Your task to perform on an android device: Open notification settings Image 0: 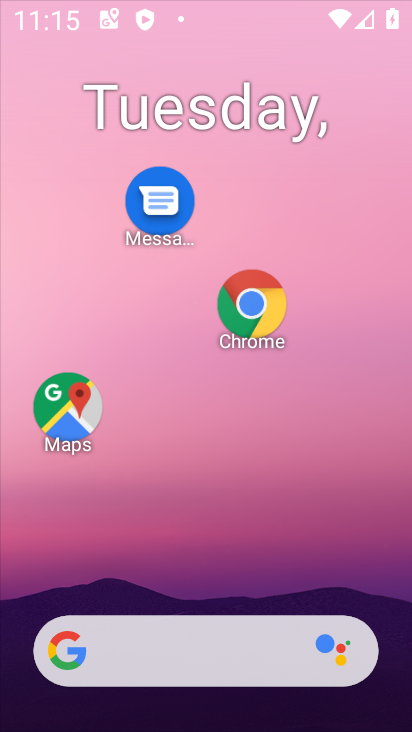
Step 0: click (363, 137)
Your task to perform on an android device: Open notification settings Image 1: 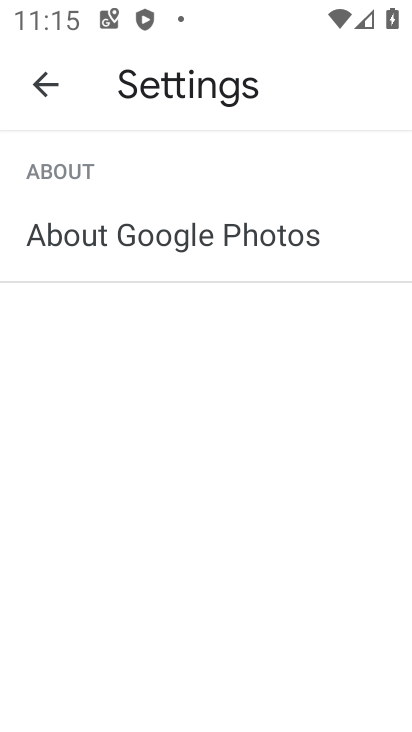
Step 1: press home button
Your task to perform on an android device: Open notification settings Image 2: 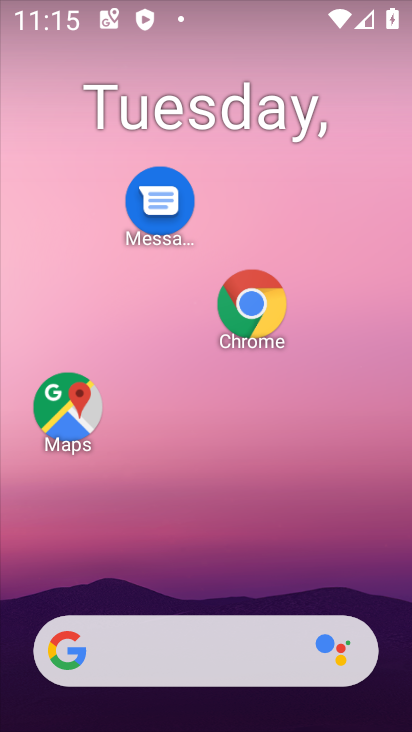
Step 2: drag from (196, 585) to (177, 188)
Your task to perform on an android device: Open notification settings Image 3: 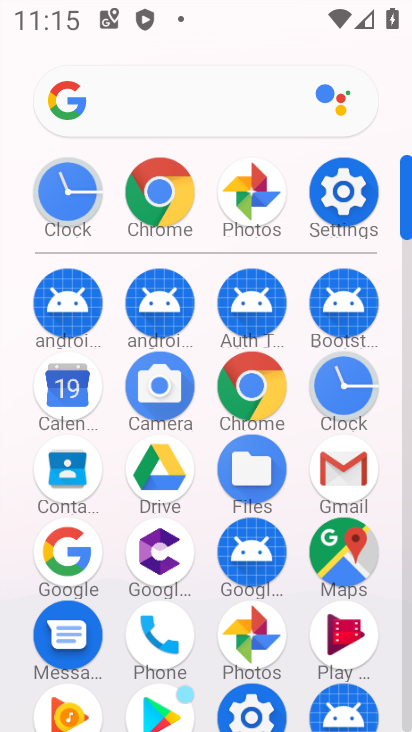
Step 3: click (336, 204)
Your task to perform on an android device: Open notification settings Image 4: 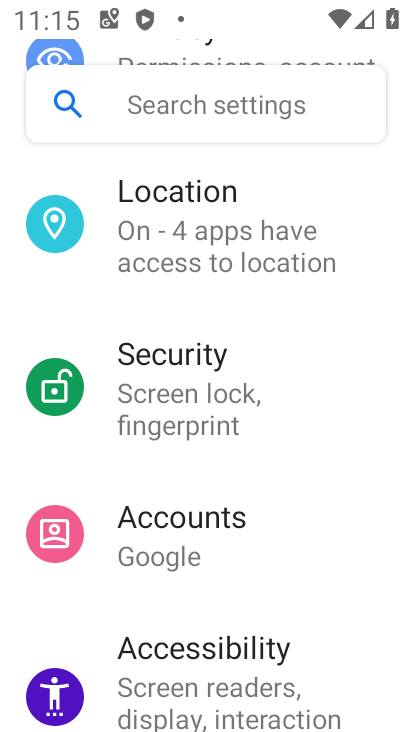
Step 4: drag from (336, 204) to (246, 709)
Your task to perform on an android device: Open notification settings Image 5: 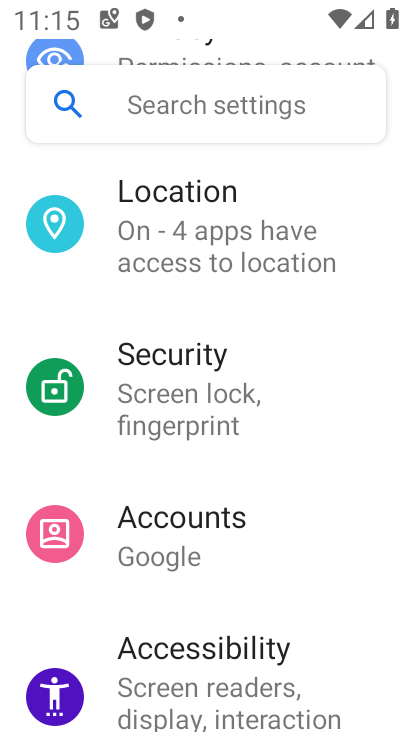
Step 5: drag from (272, 191) to (221, 705)
Your task to perform on an android device: Open notification settings Image 6: 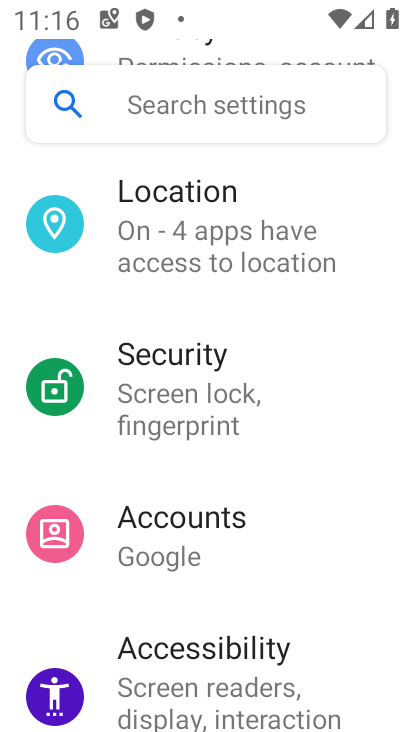
Step 6: drag from (209, 208) to (344, 552)
Your task to perform on an android device: Open notification settings Image 7: 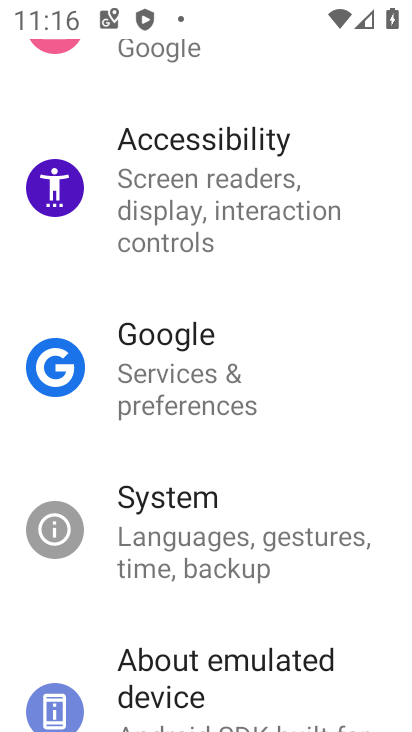
Step 7: drag from (266, 251) to (271, 658)
Your task to perform on an android device: Open notification settings Image 8: 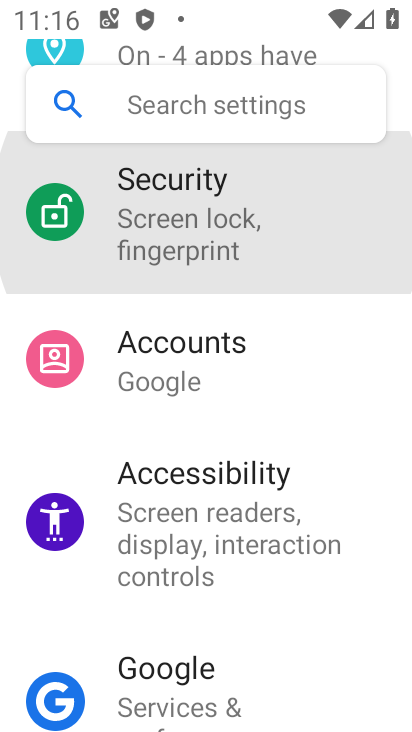
Step 8: drag from (273, 286) to (260, 646)
Your task to perform on an android device: Open notification settings Image 9: 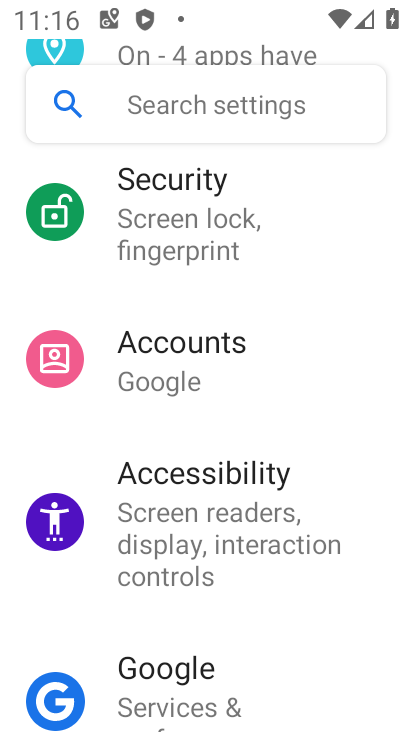
Step 9: drag from (262, 279) to (300, 626)
Your task to perform on an android device: Open notification settings Image 10: 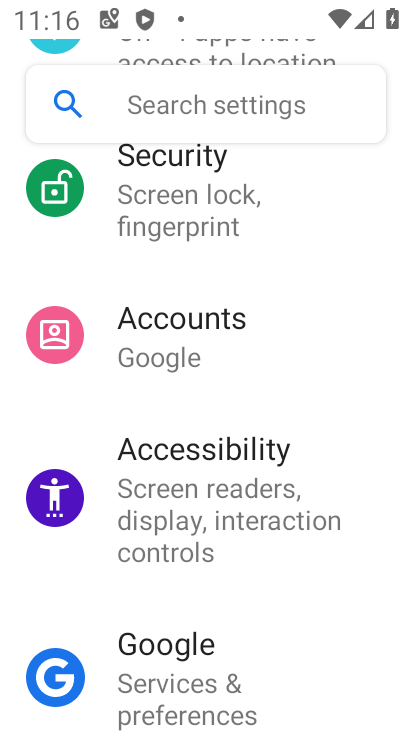
Step 10: drag from (285, 184) to (265, 691)
Your task to perform on an android device: Open notification settings Image 11: 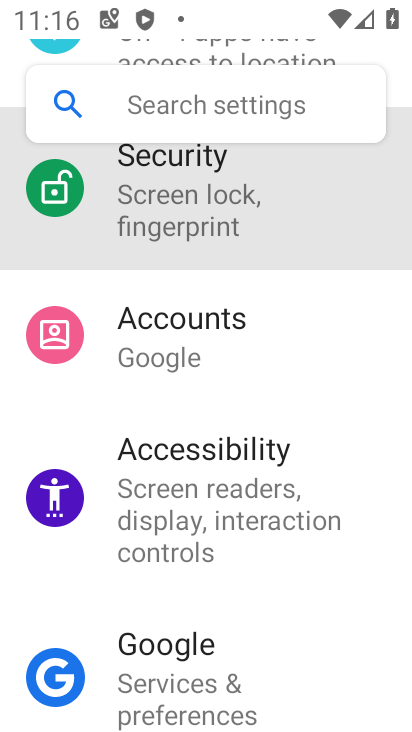
Step 11: drag from (278, 304) to (247, 674)
Your task to perform on an android device: Open notification settings Image 12: 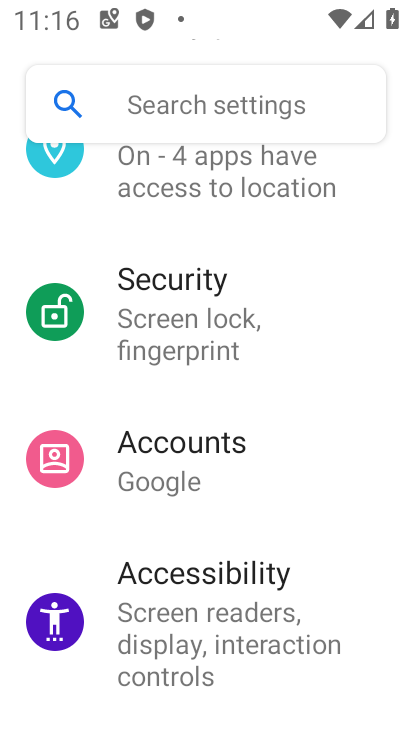
Step 12: drag from (209, 189) to (195, 653)
Your task to perform on an android device: Open notification settings Image 13: 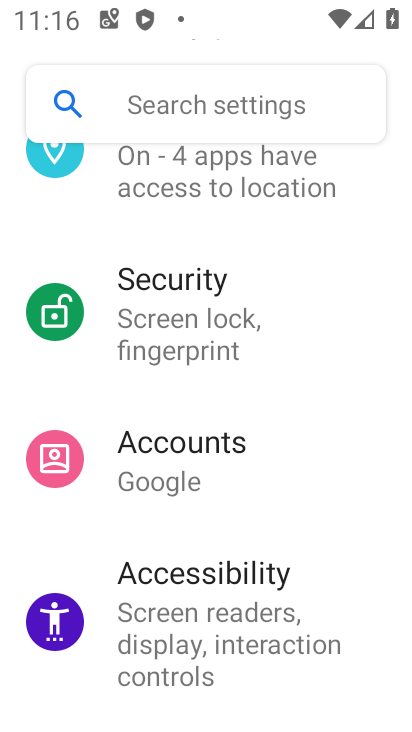
Step 13: drag from (154, 218) to (205, 586)
Your task to perform on an android device: Open notification settings Image 14: 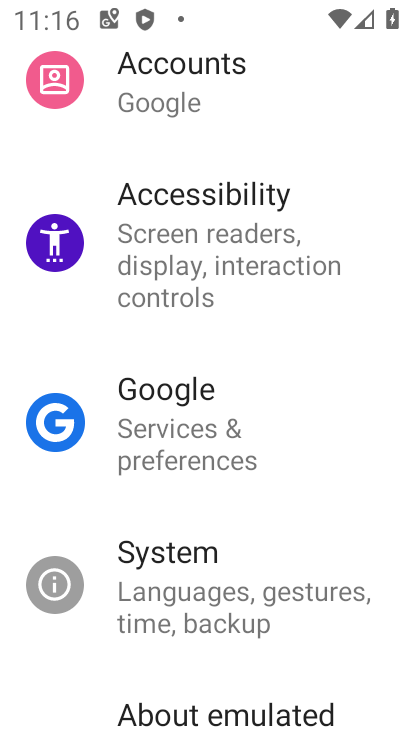
Step 14: drag from (243, 241) to (283, 706)
Your task to perform on an android device: Open notification settings Image 15: 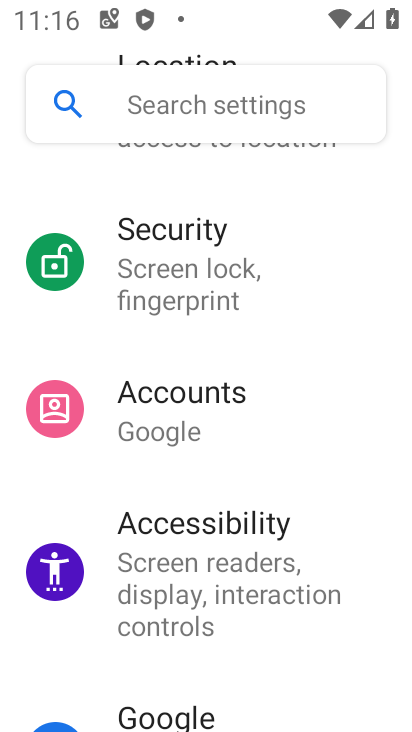
Step 15: drag from (234, 261) to (247, 719)
Your task to perform on an android device: Open notification settings Image 16: 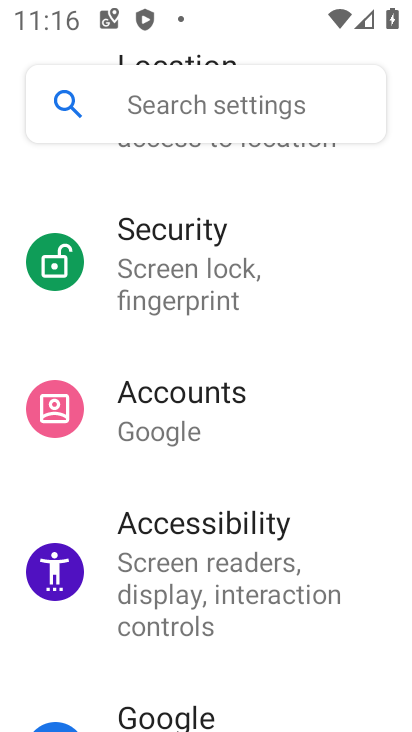
Step 16: drag from (230, 191) to (230, 611)
Your task to perform on an android device: Open notification settings Image 17: 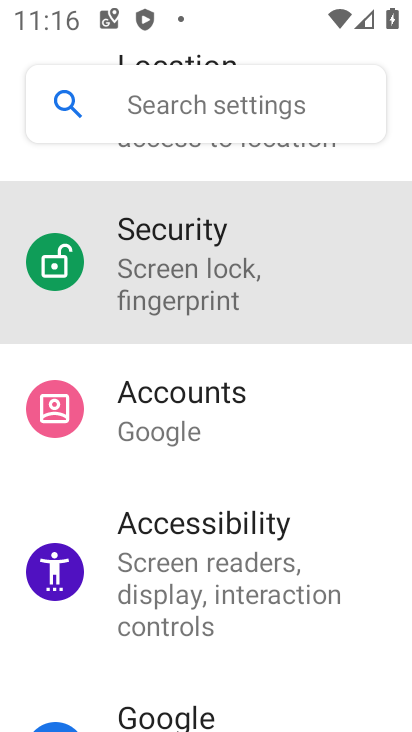
Step 17: drag from (286, 246) to (252, 673)
Your task to perform on an android device: Open notification settings Image 18: 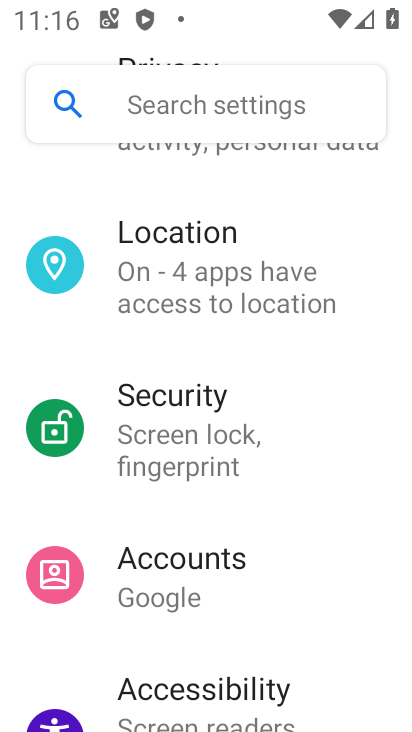
Step 18: drag from (250, 171) to (226, 731)
Your task to perform on an android device: Open notification settings Image 19: 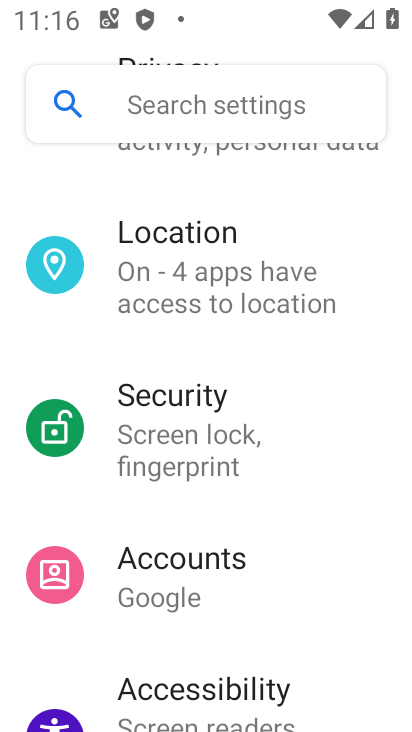
Step 19: drag from (257, 192) to (222, 563)
Your task to perform on an android device: Open notification settings Image 20: 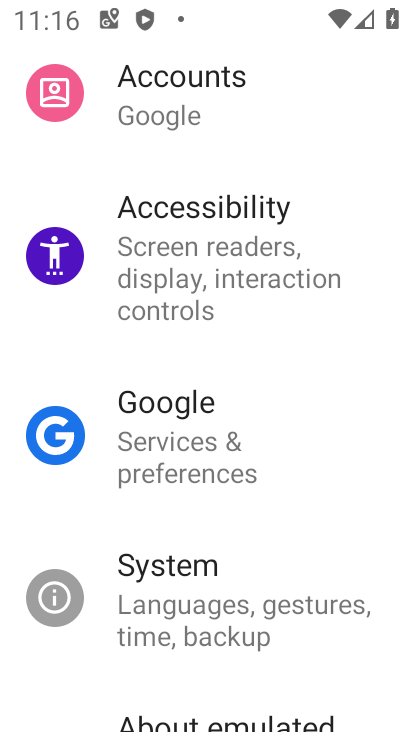
Step 20: drag from (175, 317) to (197, 682)
Your task to perform on an android device: Open notification settings Image 21: 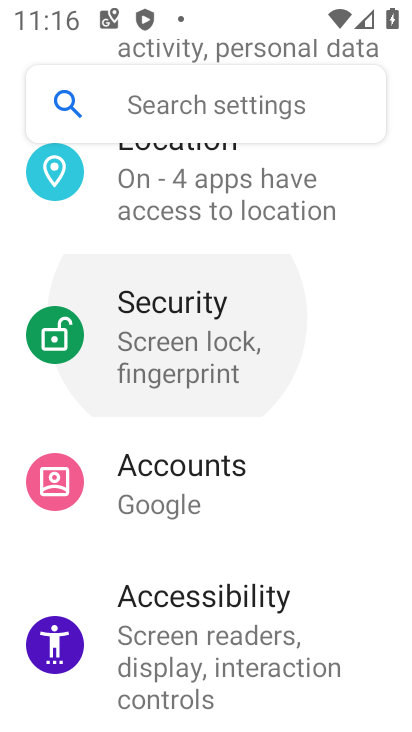
Step 21: drag from (151, 255) to (282, 629)
Your task to perform on an android device: Open notification settings Image 22: 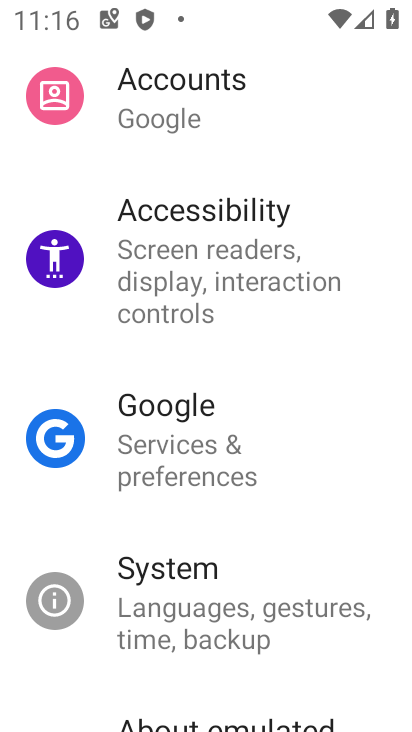
Step 22: drag from (259, 237) to (285, 683)
Your task to perform on an android device: Open notification settings Image 23: 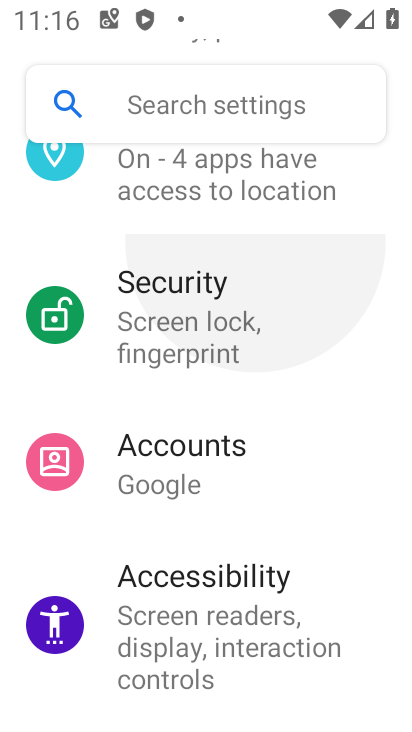
Step 23: drag from (229, 216) to (254, 550)
Your task to perform on an android device: Open notification settings Image 24: 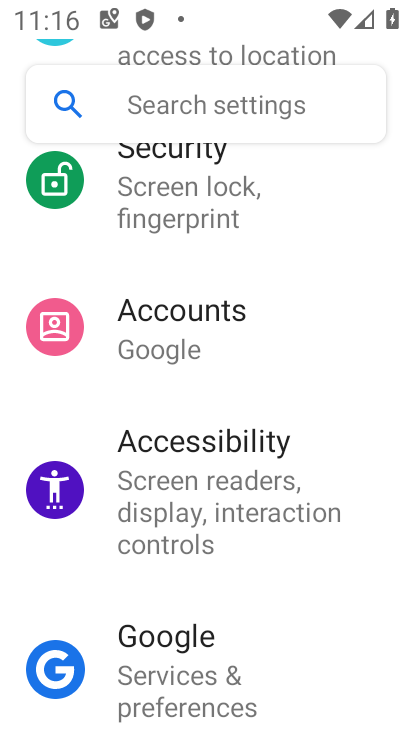
Step 24: drag from (220, 147) to (273, 589)
Your task to perform on an android device: Open notification settings Image 25: 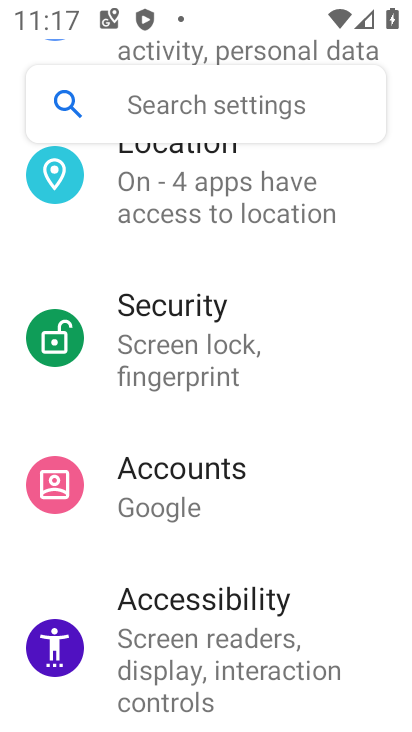
Step 25: drag from (394, 161) to (151, 498)
Your task to perform on an android device: Open notification settings Image 26: 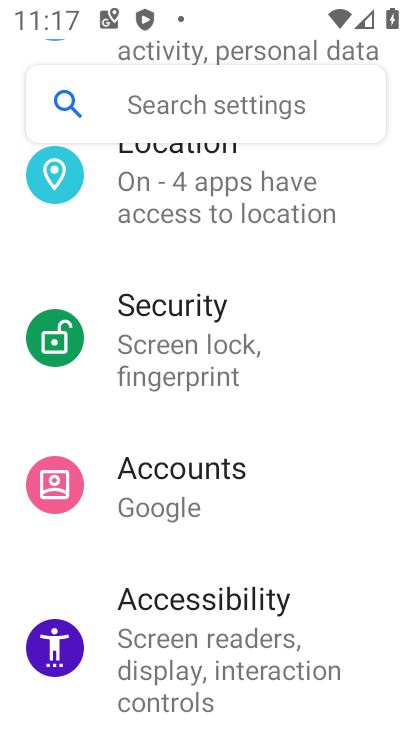
Step 26: drag from (199, 207) to (395, 690)
Your task to perform on an android device: Open notification settings Image 27: 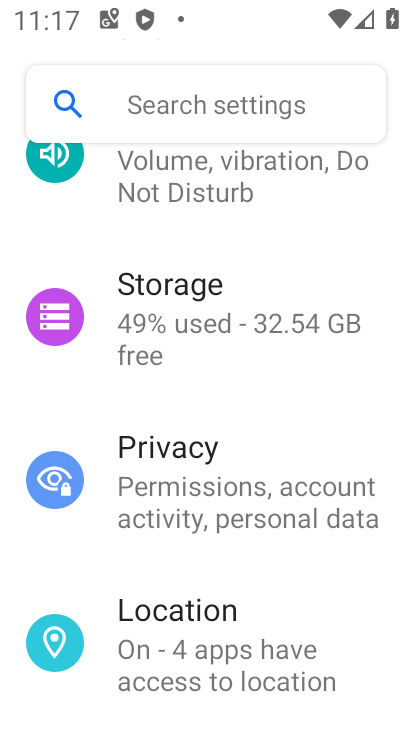
Step 27: drag from (284, 229) to (318, 635)
Your task to perform on an android device: Open notification settings Image 28: 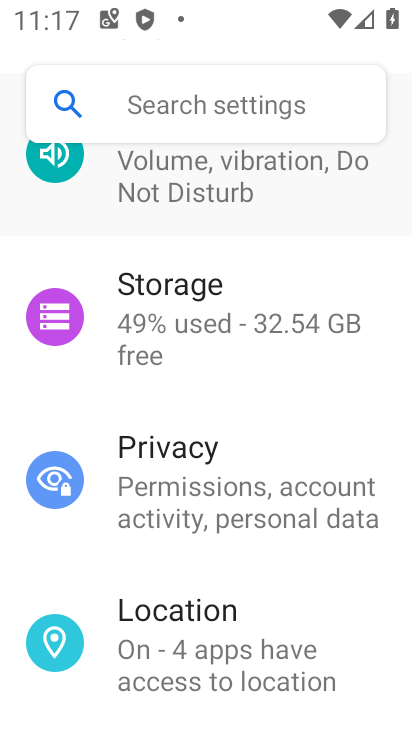
Step 28: drag from (285, 304) to (250, 589)
Your task to perform on an android device: Open notification settings Image 29: 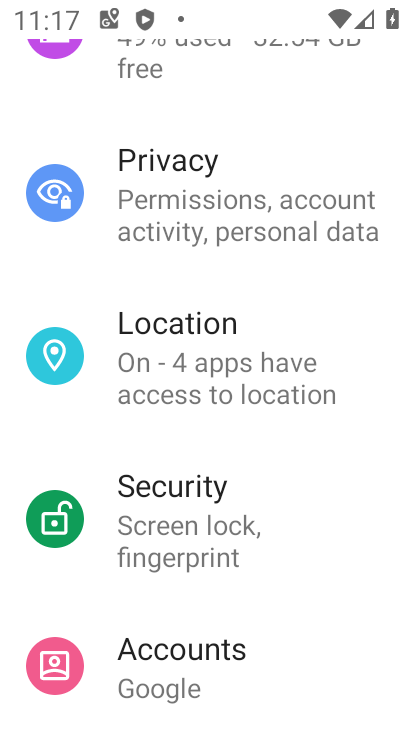
Step 29: drag from (192, 264) to (183, 602)
Your task to perform on an android device: Open notification settings Image 30: 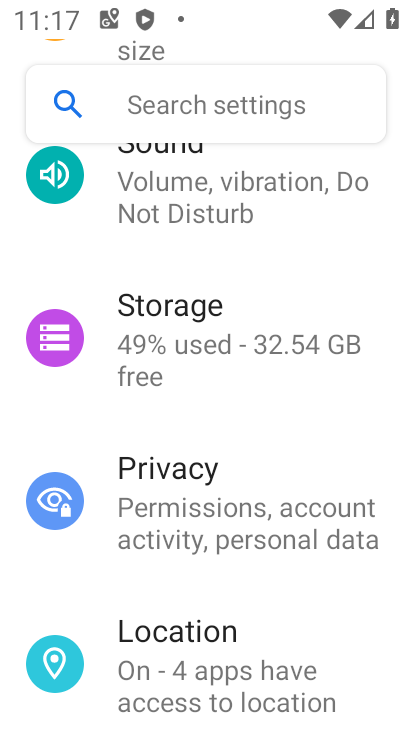
Step 30: drag from (169, 221) to (137, 622)
Your task to perform on an android device: Open notification settings Image 31: 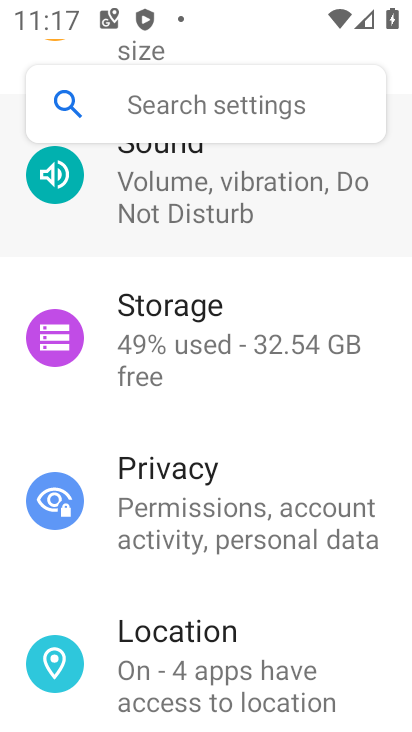
Step 31: drag from (132, 204) to (185, 539)
Your task to perform on an android device: Open notification settings Image 32: 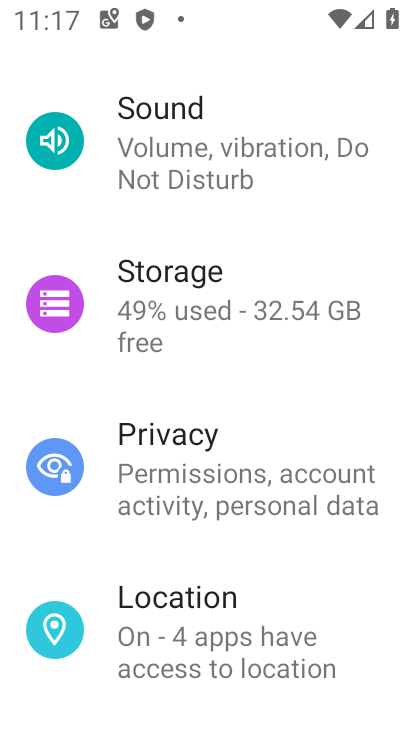
Step 32: drag from (214, 169) to (226, 603)
Your task to perform on an android device: Open notification settings Image 33: 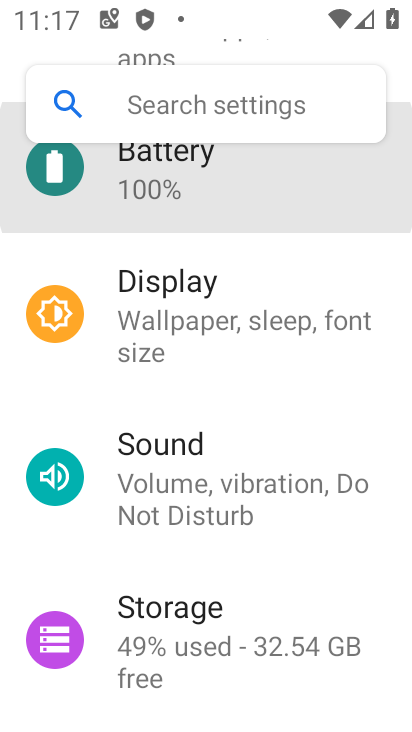
Step 33: drag from (185, 222) to (192, 727)
Your task to perform on an android device: Open notification settings Image 34: 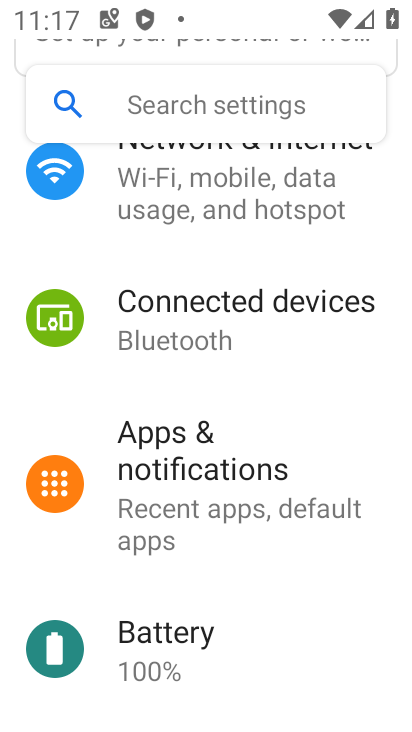
Step 34: click (208, 87)
Your task to perform on an android device: Open notification settings Image 35: 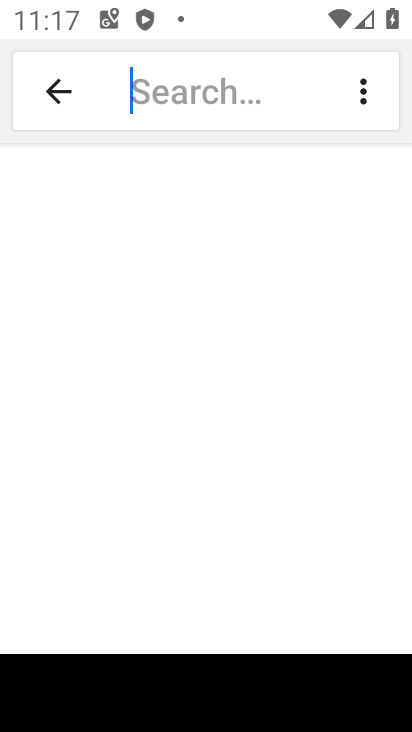
Step 35: click (313, 81)
Your task to perform on an android device: Open notification settings Image 36: 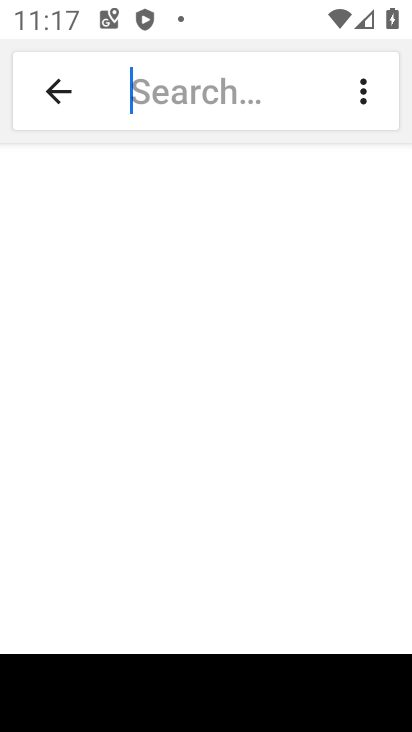
Step 36: type "notification"
Your task to perform on an android device: Open notification settings Image 37: 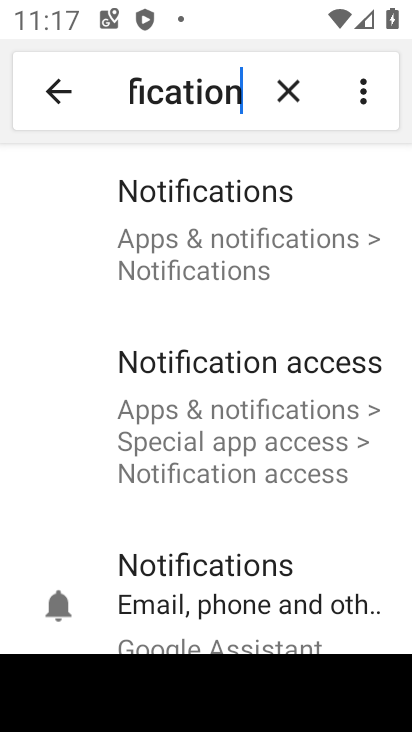
Step 37: click (232, 229)
Your task to perform on an android device: Open notification settings Image 38: 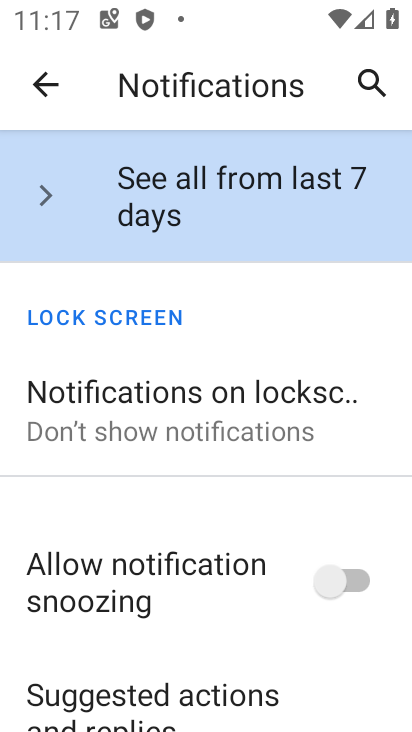
Step 38: click (217, 422)
Your task to perform on an android device: Open notification settings Image 39: 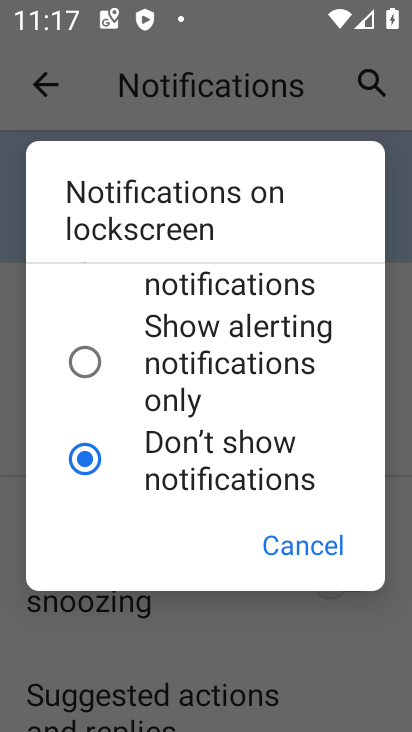
Step 39: task complete